Your task to perform on an android device: refresh tabs in the chrome app Image 0: 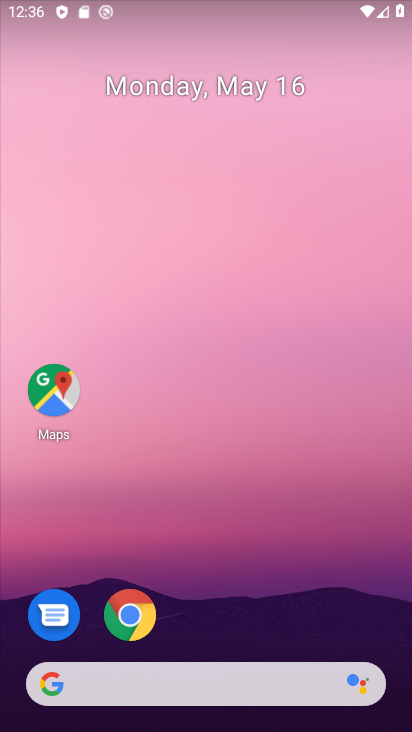
Step 0: click (129, 610)
Your task to perform on an android device: refresh tabs in the chrome app Image 1: 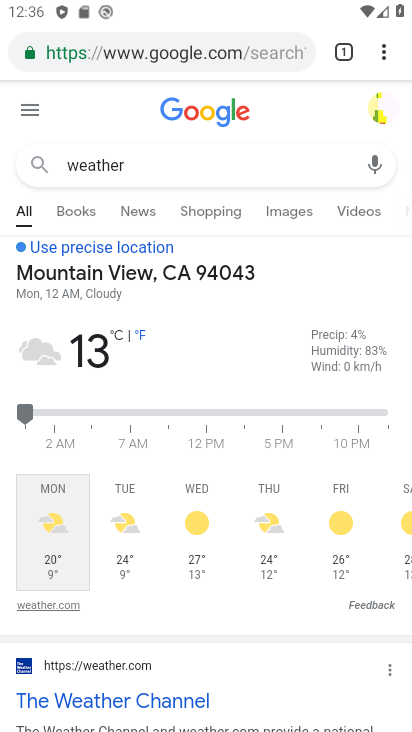
Step 1: click (384, 52)
Your task to perform on an android device: refresh tabs in the chrome app Image 2: 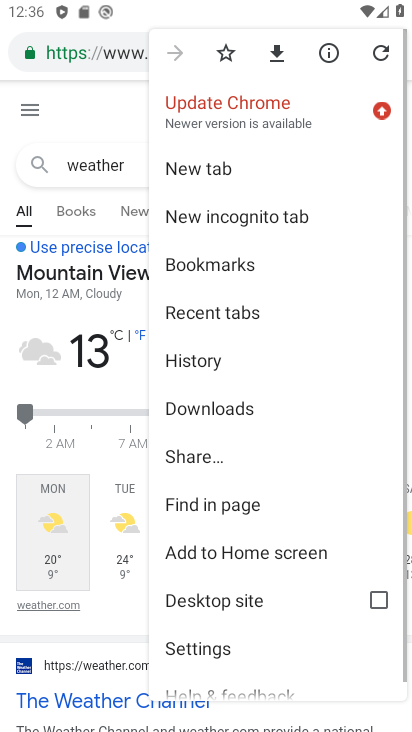
Step 2: click (384, 52)
Your task to perform on an android device: refresh tabs in the chrome app Image 3: 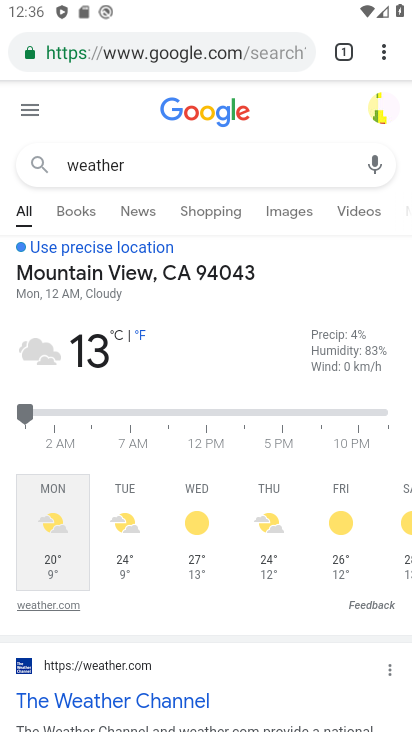
Step 3: task complete